Your task to perform on an android device: toggle pop-ups in chrome Image 0: 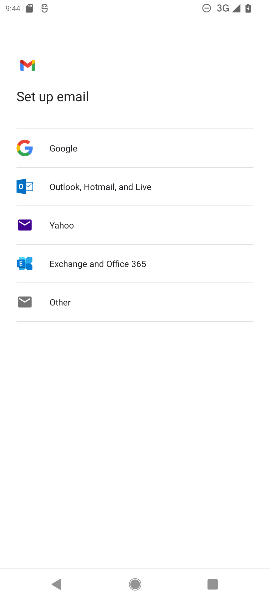
Step 0: press home button
Your task to perform on an android device: toggle pop-ups in chrome Image 1: 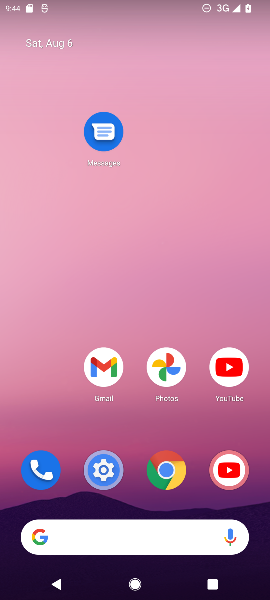
Step 1: drag from (171, 430) to (127, 1)
Your task to perform on an android device: toggle pop-ups in chrome Image 2: 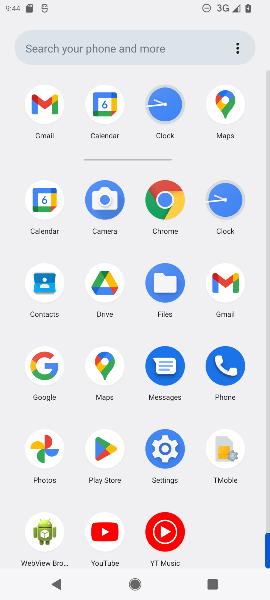
Step 2: click (157, 201)
Your task to perform on an android device: toggle pop-ups in chrome Image 3: 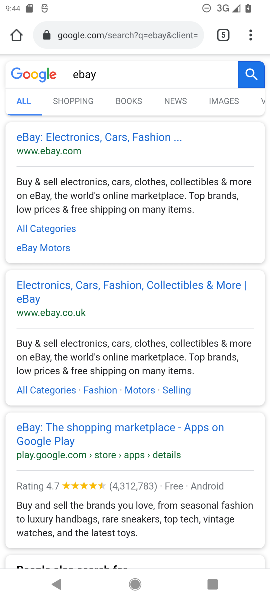
Step 3: click (254, 35)
Your task to perform on an android device: toggle pop-ups in chrome Image 4: 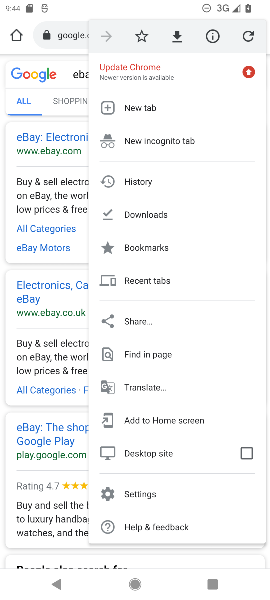
Step 4: click (131, 492)
Your task to perform on an android device: toggle pop-ups in chrome Image 5: 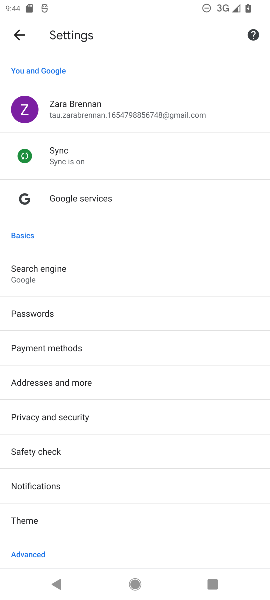
Step 5: drag from (82, 417) to (75, 247)
Your task to perform on an android device: toggle pop-ups in chrome Image 6: 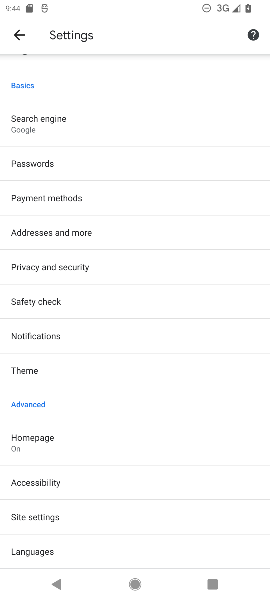
Step 6: click (60, 520)
Your task to perform on an android device: toggle pop-ups in chrome Image 7: 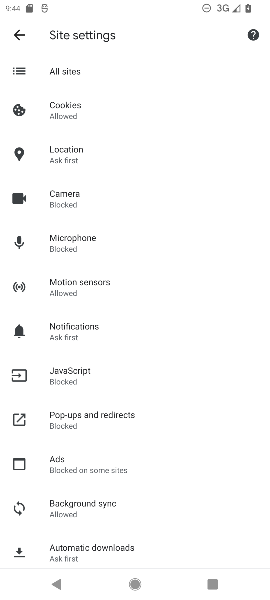
Step 7: click (72, 423)
Your task to perform on an android device: toggle pop-ups in chrome Image 8: 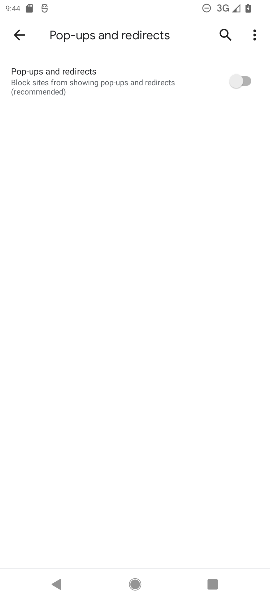
Step 8: click (243, 80)
Your task to perform on an android device: toggle pop-ups in chrome Image 9: 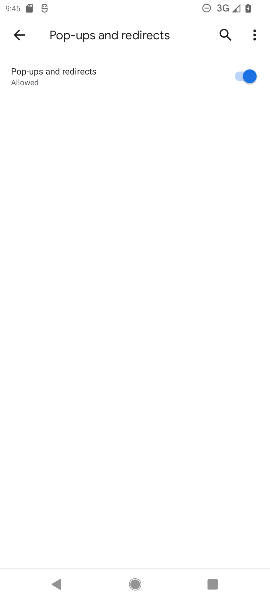
Step 9: task complete